Your task to perform on an android device: Open Google Chrome and open the bookmarks view Image 0: 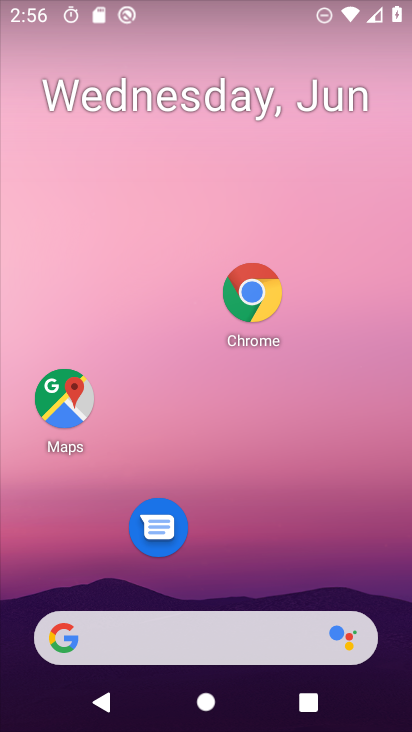
Step 0: click (242, 331)
Your task to perform on an android device: Open Google Chrome and open the bookmarks view Image 1: 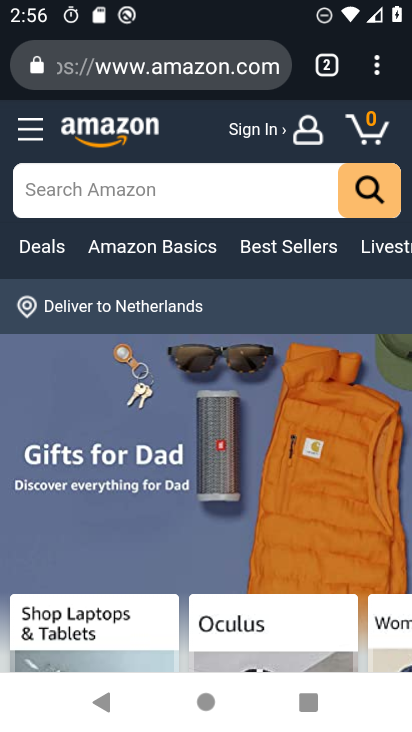
Step 1: click (383, 82)
Your task to perform on an android device: Open Google Chrome and open the bookmarks view Image 2: 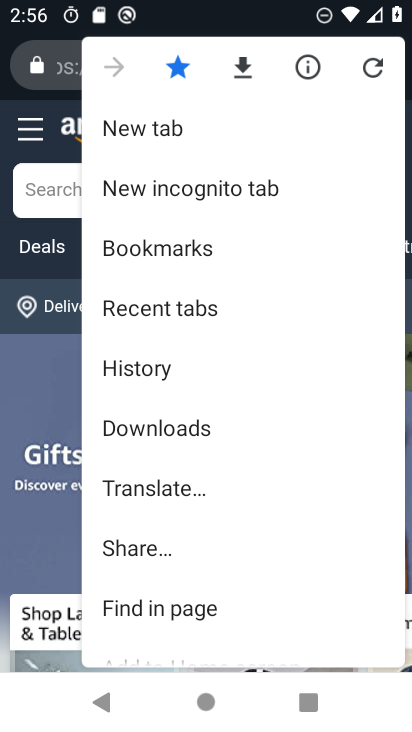
Step 2: drag from (301, 535) to (291, 344)
Your task to perform on an android device: Open Google Chrome and open the bookmarks view Image 3: 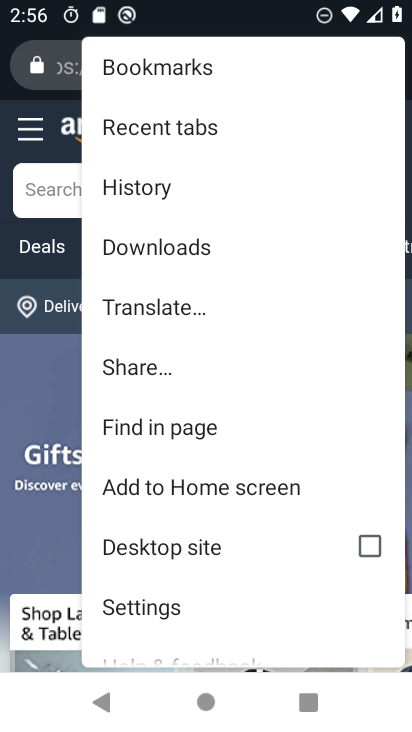
Step 3: click (180, 79)
Your task to perform on an android device: Open Google Chrome and open the bookmarks view Image 4: 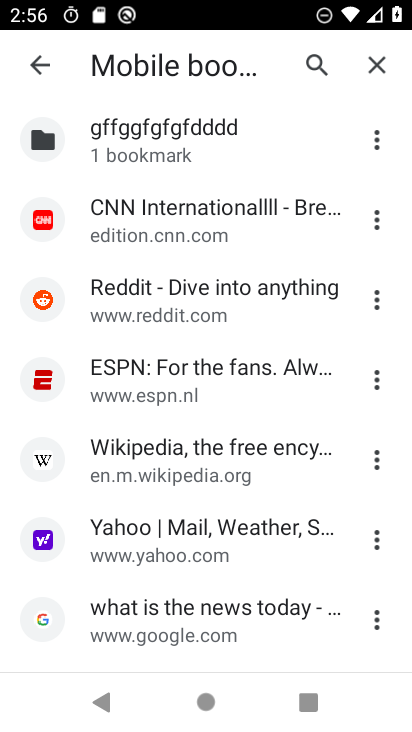
Step 4: task complete